Your task to perform on an android device: toggle wifi Image 0: 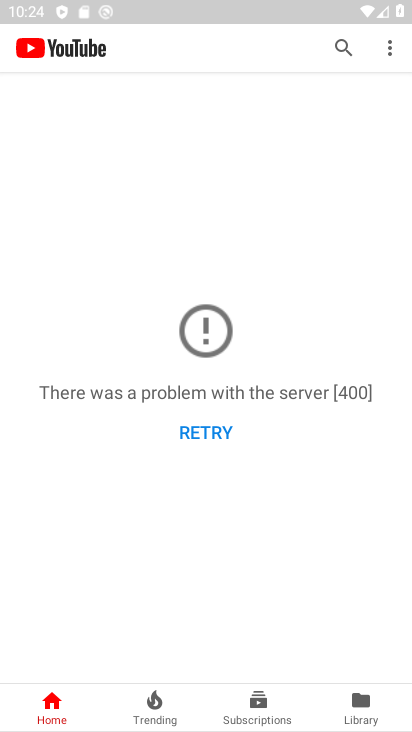
Step 0: press home button
Your task to perform on an android device: toggle wifi Image 1: 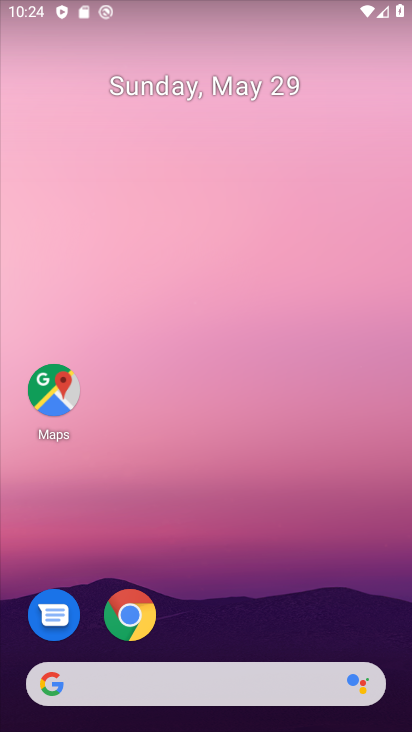
Step 1: drag from (384, 623) to (371, 46)
Your task to perform on an android device: toggle wifi Image 2: 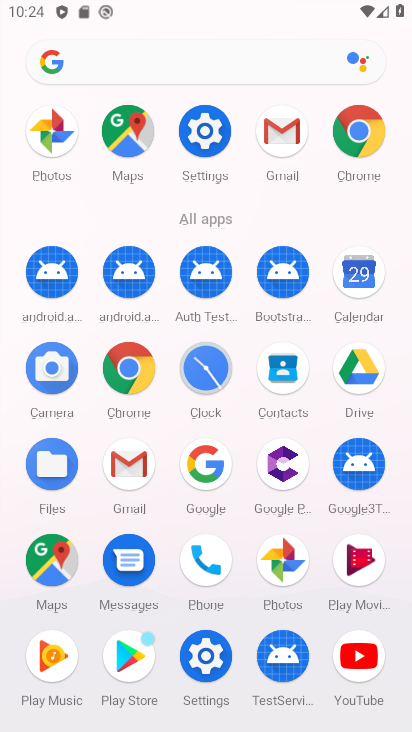
Step 2: click (209, 671)
Your task to perform on an android device: toggle wifi Image 3: 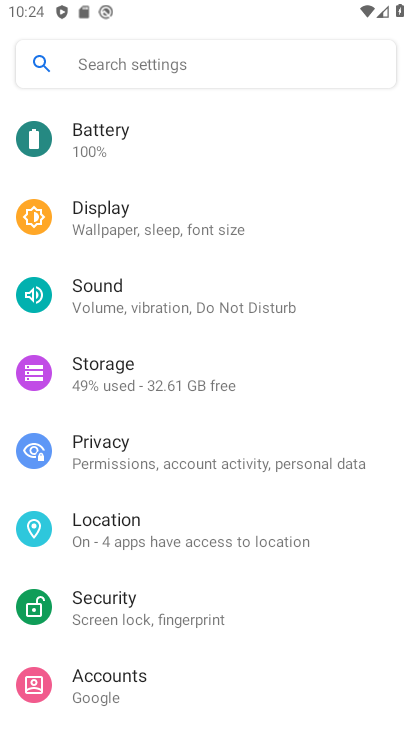
Step 3: drag from (318, 667) to (326, 528)
Your task to perform on an android device: toggle wifi Image 4: 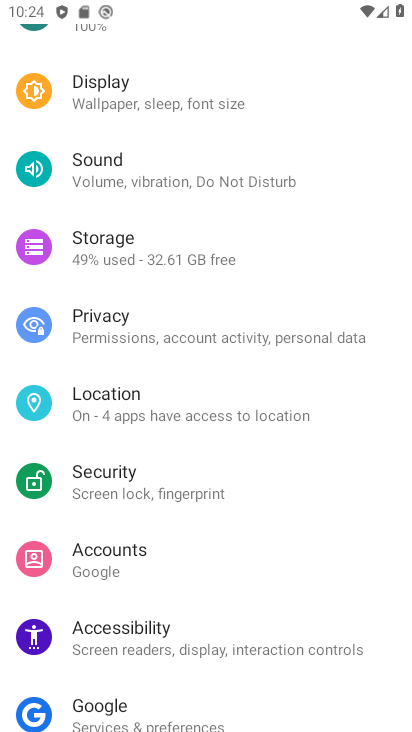
Step 4: drag from (355, 424) to (355, 532)
Your task to perform on an android device: toggle wifi Image 5: 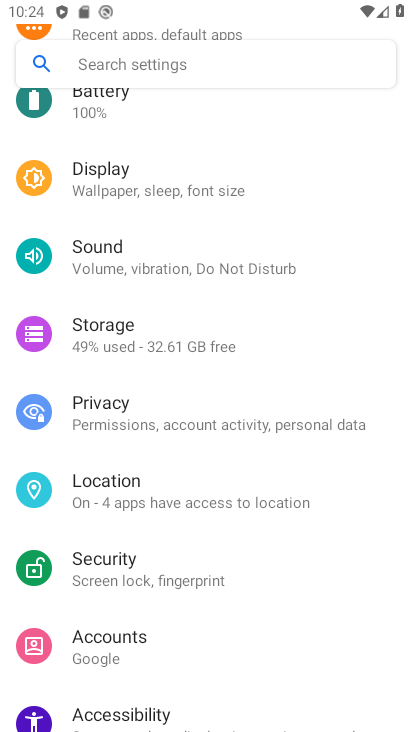
Step 5: drag from (357, 338) to (358, 494)
Your task to perform on an android device: toggle wifi Image 6: 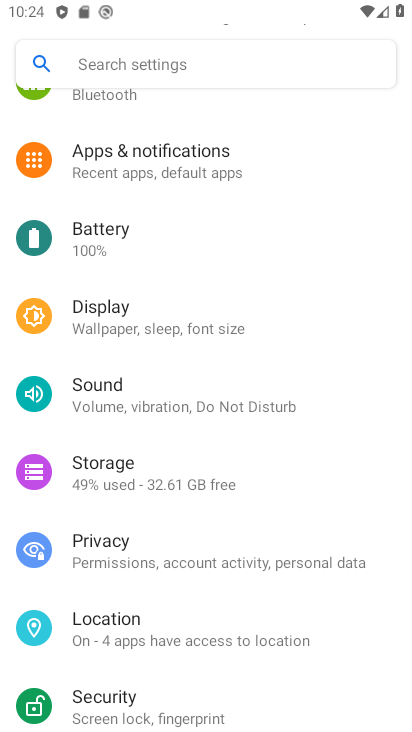
Step 6: drag from (360, 342) to (360, 455)
Your task to perform on an android device: toggle wifi Image 7: 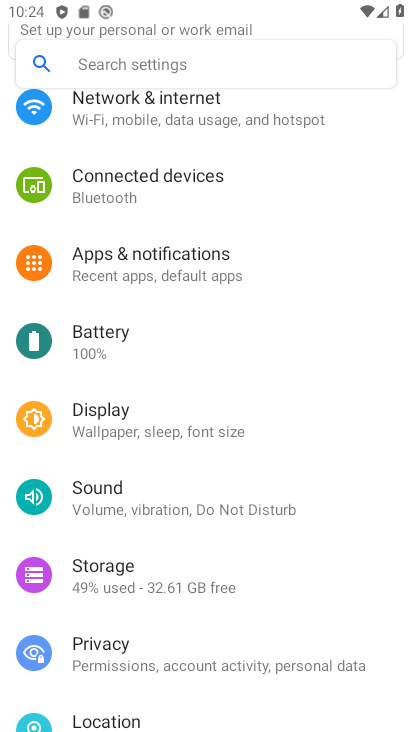
Step 7: drag from (345, 327) to (343, 451)
Your task to perform on an android device: toggle wifi Image 8: 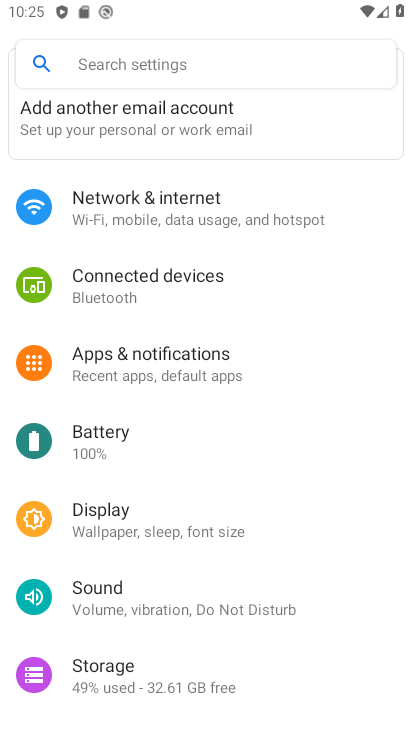
Step 8: drag from (345, 302) to (341, 426)
Your task to perform on an android device: toggle wifi Image 9: 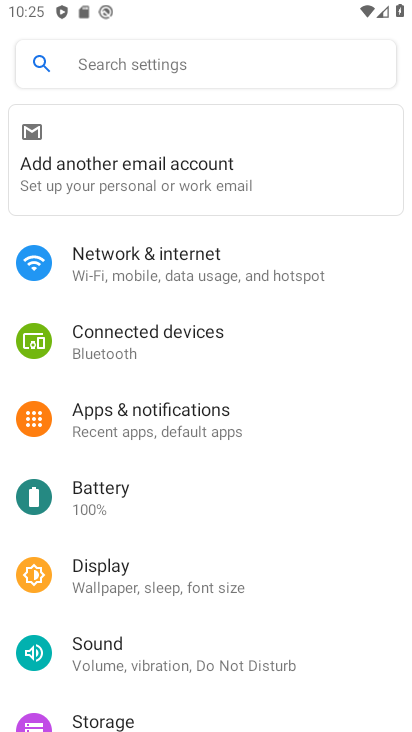
Step 9: click (277, 269)
Your task to perform on an android device: toggle wifi Image 10: 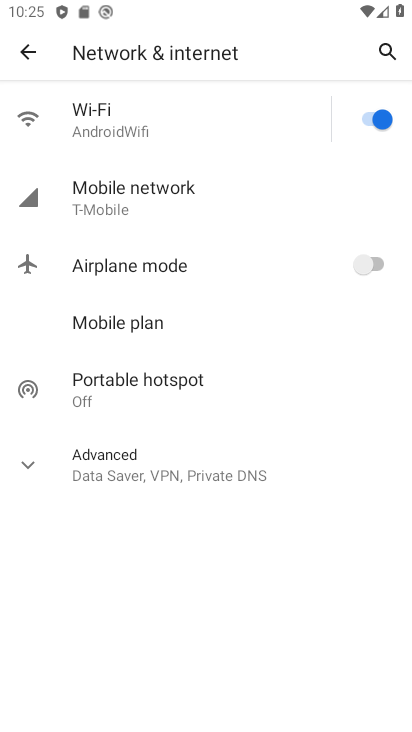
Step 10: click (374, 126)
Your task to perform on an android device: toggle wifi Image 11: 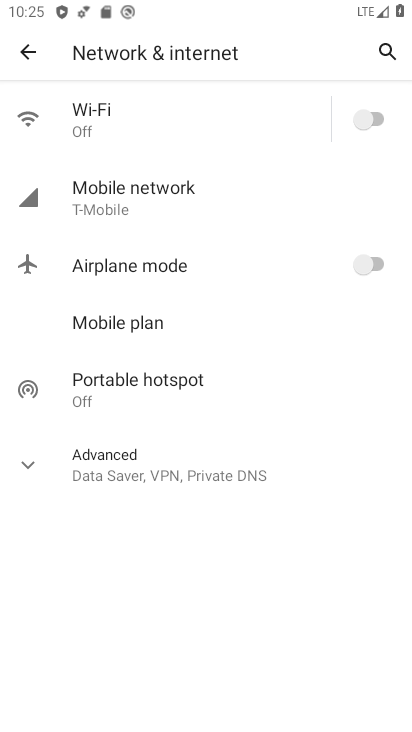
Step 11: task complete